Your task to perform on an android device: Search for seafood restaurants on Google Maps Image 0: 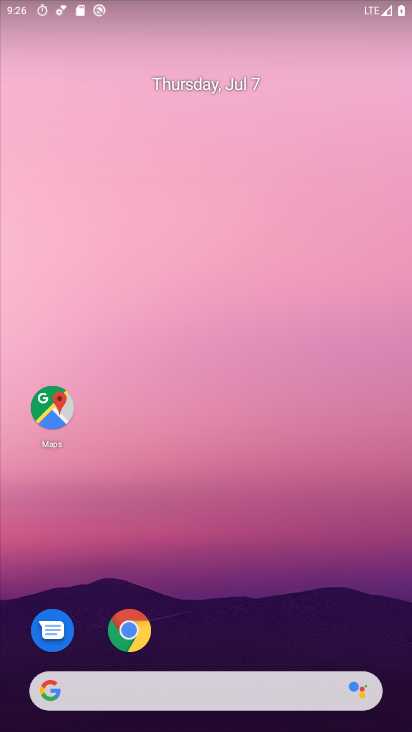
Step 0: click (60, 406)
Your task to perform on an android device: Search for seafood restaurants on Google Maps Image 1: 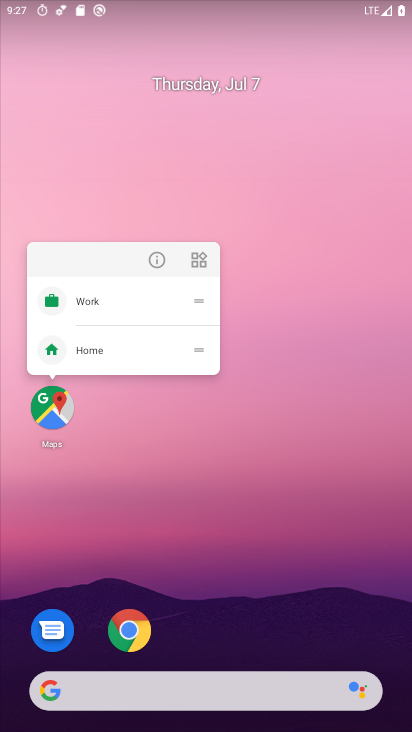
Step 1: click (29, 406)
Your task to perform on an android device: Search for seafood restaurants on Google Maps Image 2: 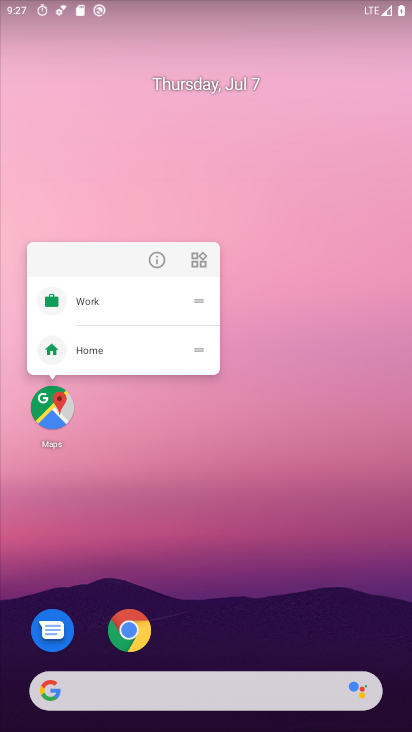
Step 2: click (54, 408)
Your task to perform on an android device: Search for seafood restaurants on Google Maps Image 3: 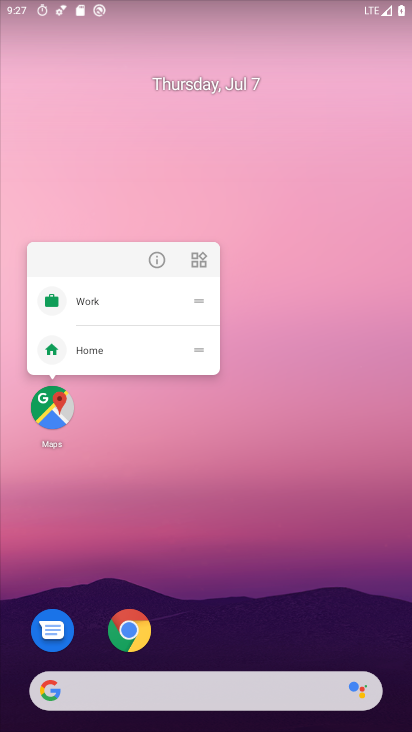
Step 3: click (47, 415)
Your task to perform on an android device: Search for seafood restaurants on Google Maps Image 4: 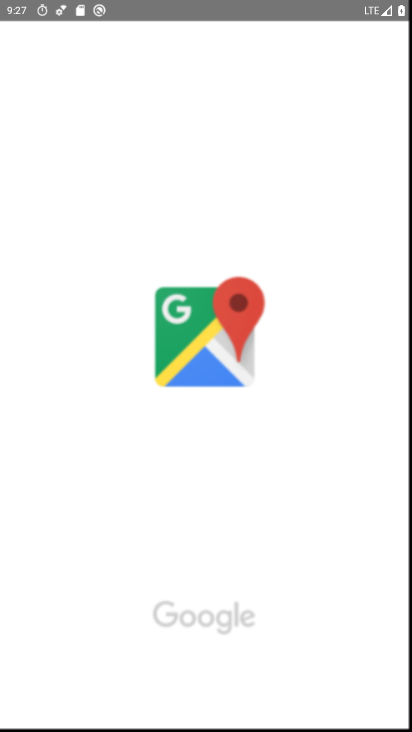
Step 4: click (47, 415)
Your task to perform on an android device: Search for seafood restaurants on Google Maps Image 5: 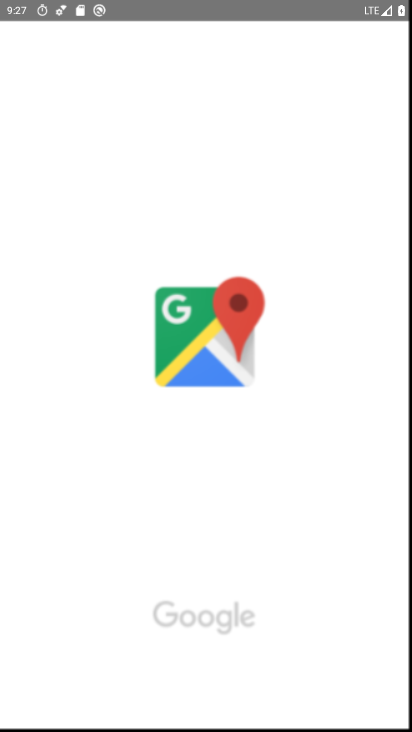
Step 5: task complete